Your task to perform on an android device: delete the emails in spam in the gmail app Image 0: 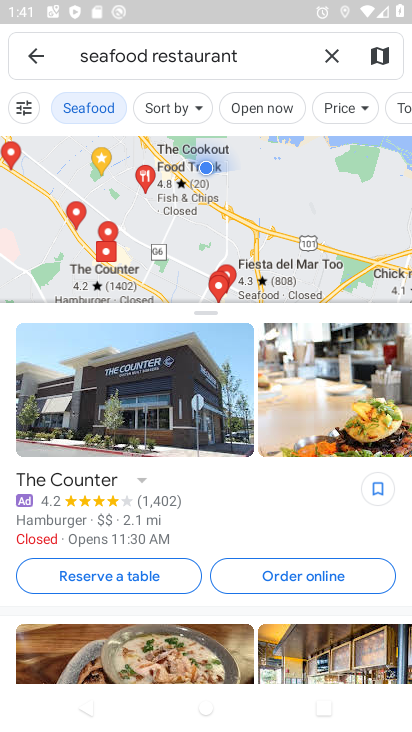
Step 0: press home button
Your task to perform on an android device: delete the emails in spam in the gmail app Image 1: 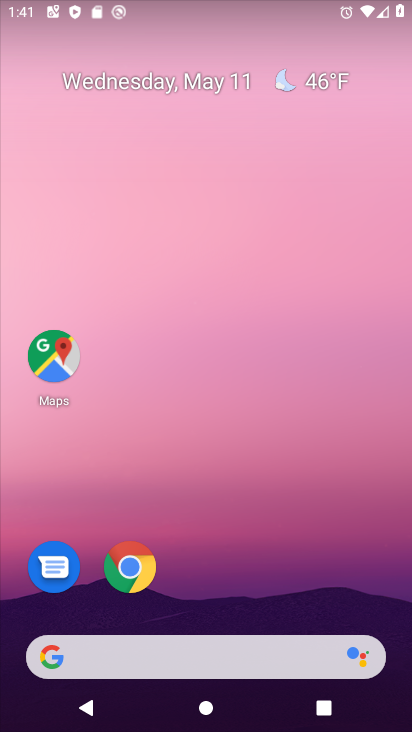
Step 1: drag from (200, 612) to (315, 9)
Your task to perform on an android device: delete the emails in spam in the gmail app Image 2: 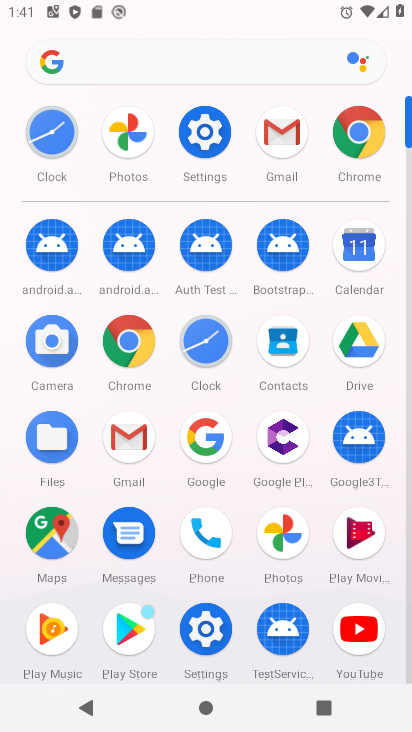
Step 2: click (130, 445)
Your task to perform on an android device: delete the emails in spam in the gmail app Image 3: 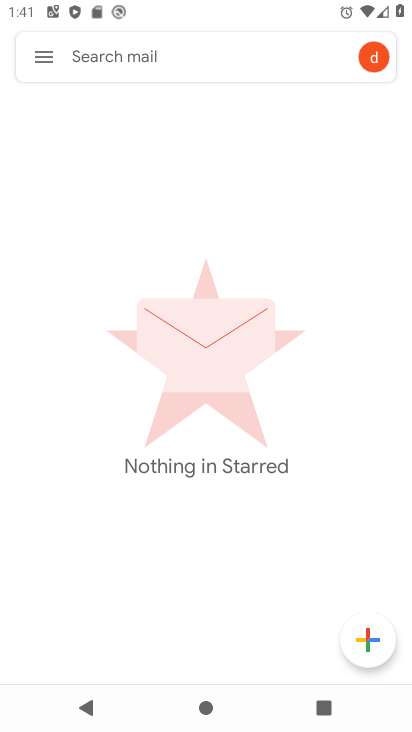
Step 3: click (43, 59)
Your task to perform on an android device: delete the emails in spam in the gmail app Image 4: 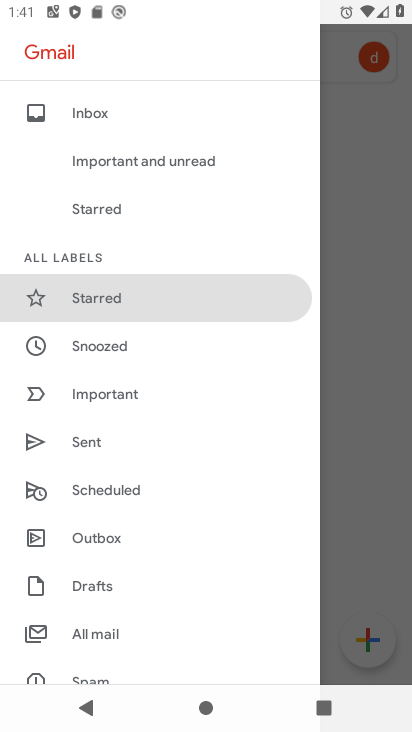
Step 4: drag from (99, 606) to (62, 336)
Your task to perform on an android device: delete the emails in spam in the gmail app Image 5: 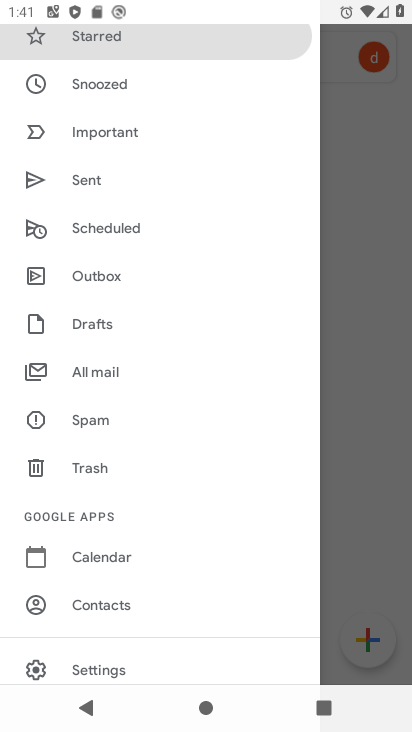
Step 5: click (69, 426)
Your task to perform on an android device: delete the emails in spam in the gmail app Image 6: 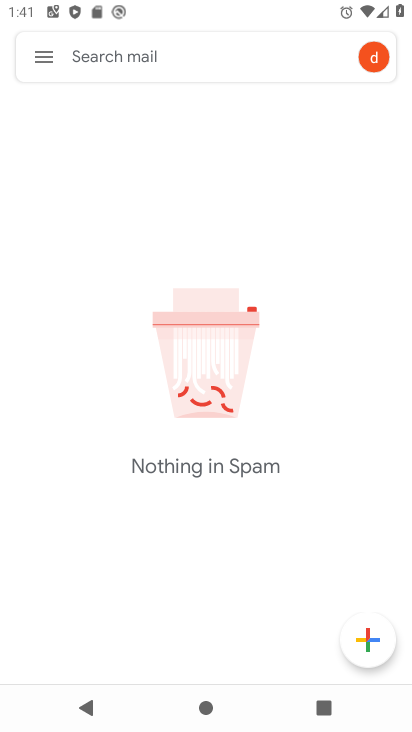
Step 6: task complete